Your task to perform on an android device: turn on improve location accuracy Image 0: 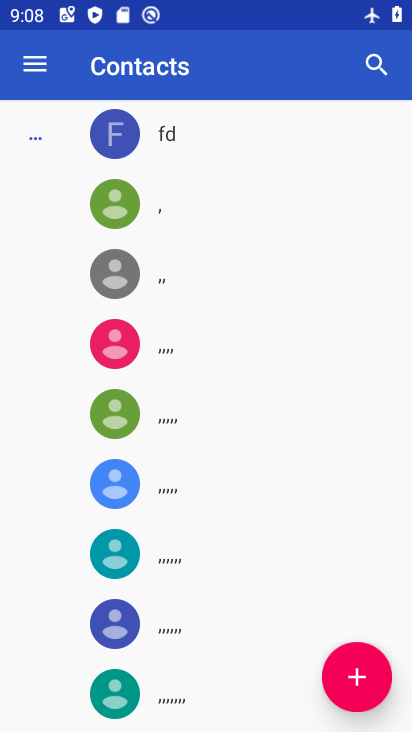
Step 0: press home button
Your task to perform on an android device: turn on improve location accuracy Image 1: 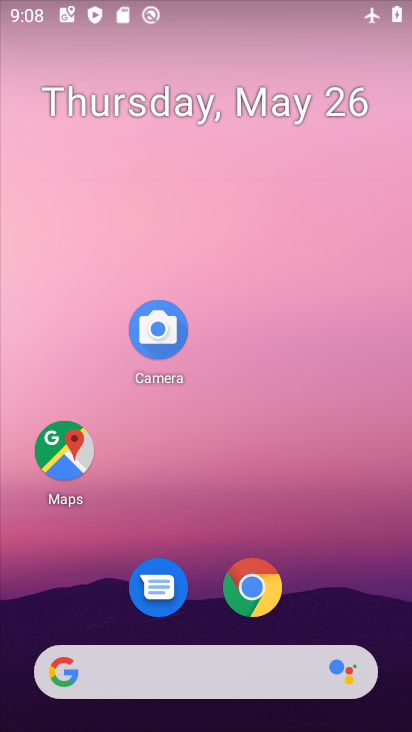
Step 1: drag from (196, 536) to (173, 242)
Your task to perform on an android device: turn on improve location accuracy Image 2: 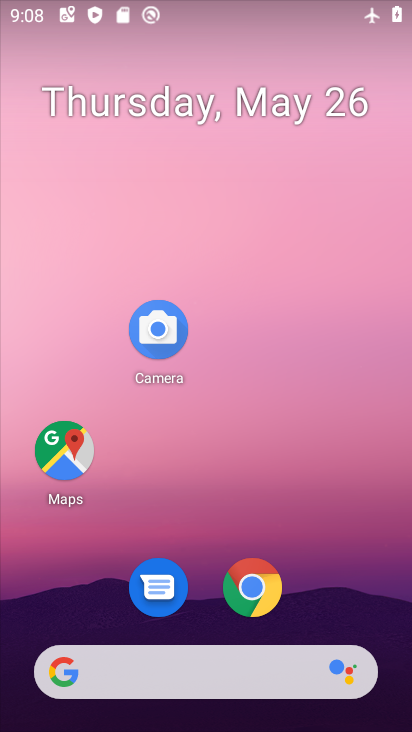
Step 2: drag from (206, 630) to (212, 186)
Your task to perform on an android device: turn on improve location accuracy Image 3: 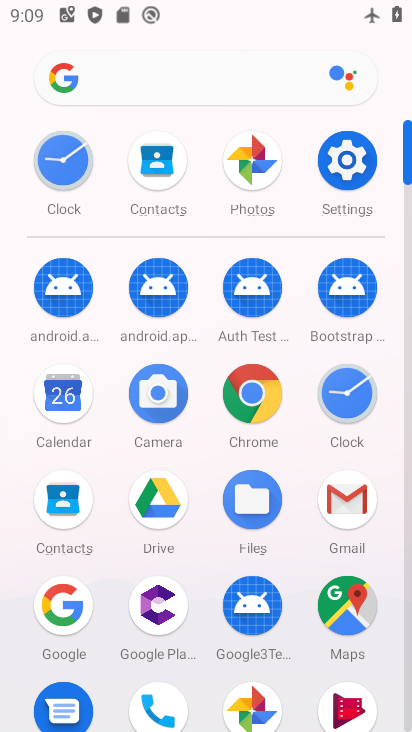
Step 3: click (338, 151)
Your task to perform on an android device: turn on improve location accuracy Image 4: 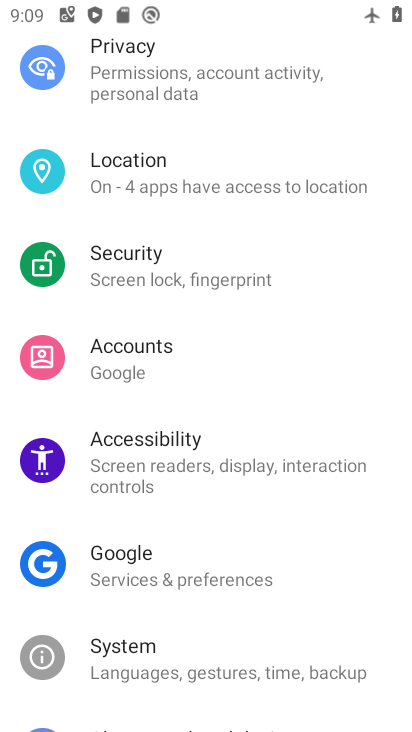
Step 4: click (198, 178)
Your task to perform on an android device: turn on improve location accuracy Image 5: 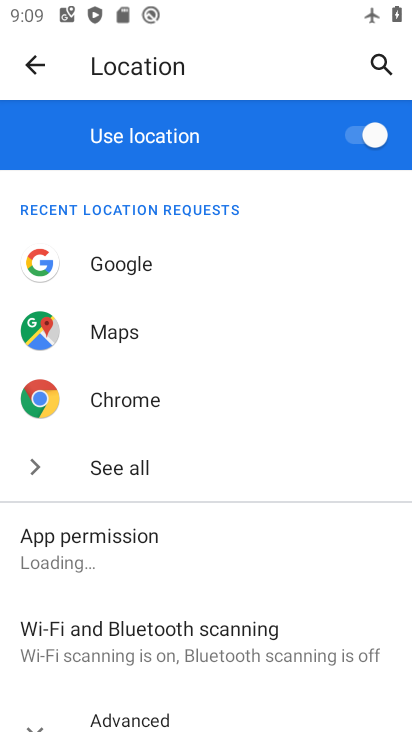
Step 5: drag from (248, 628) to (249, 325)
Your task to perform on an android device: turn on improve location accuracy Image 6: 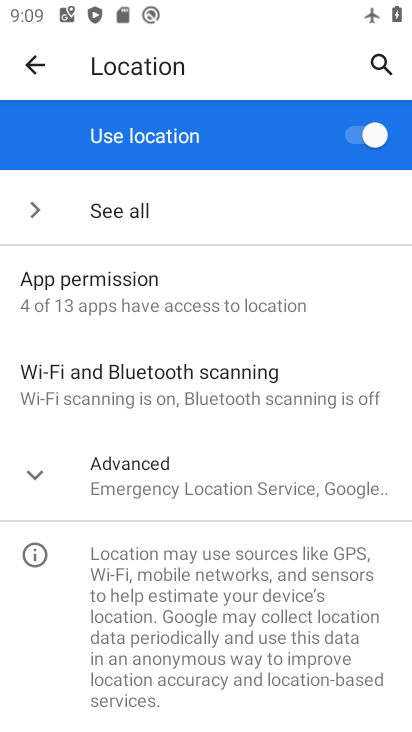
Step 6: click (202, 482)
Your task to perform on an android device: turn on improve location accuracy Image 7: 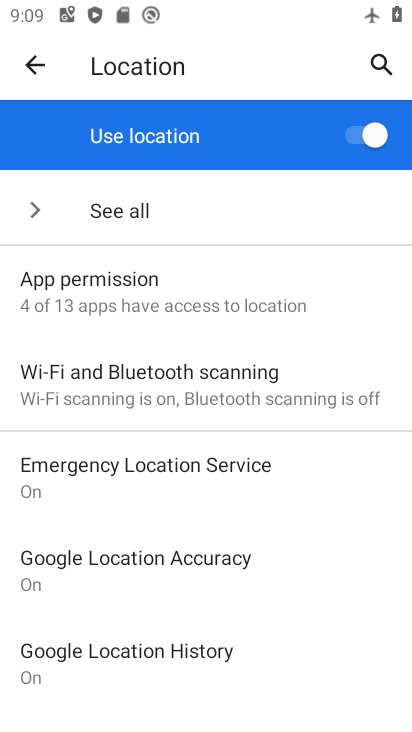
Step 7: click (221, 566)
Your task to perform on an android device: turn on improve location accuracy Image 8: 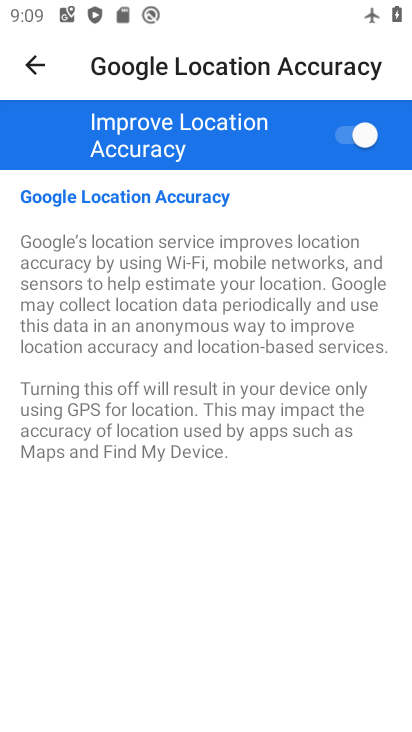
Step 8: task complete